Your task to perform on an android device: Search for Italian restaurants on Maps Image 0: 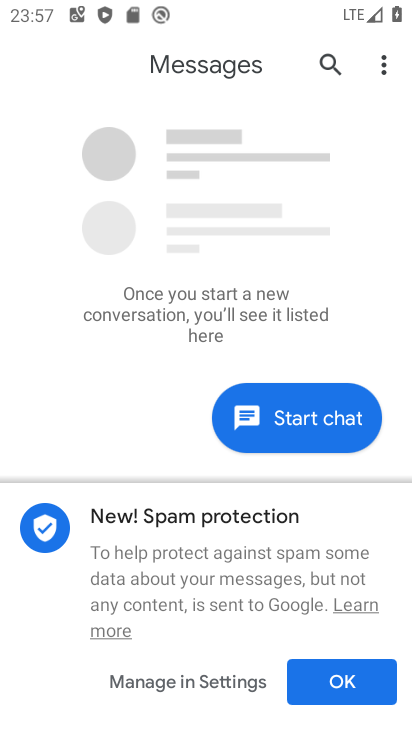
Step 0: press home button
Your task to perform on an android device: Search for Italian restaurants on Maps Image 1: 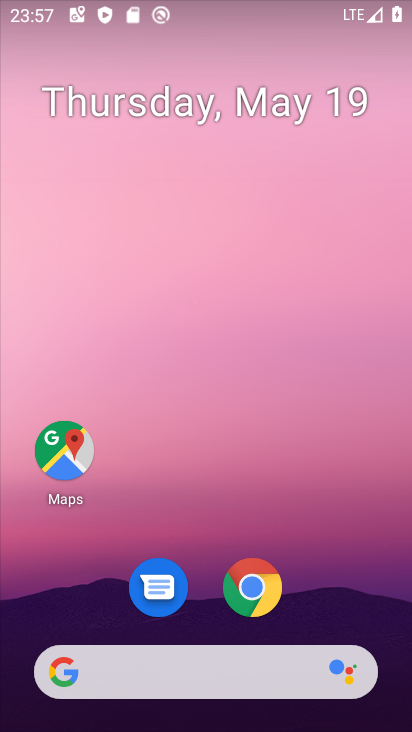
Step 1: drag from (244, 656) to (180, 267)
Your task to perform on an android device: Search for Italian restaurants on Maps Image 2: 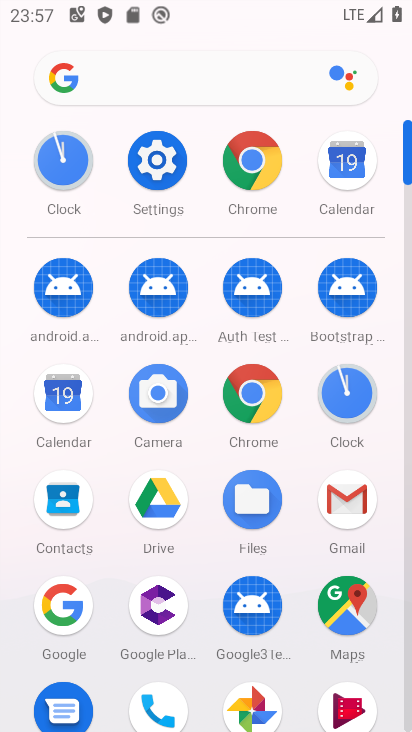
Step 2: click (355, 594)
Your task to perform on an android device: Search for Italian restaurants on Maps Image 3: 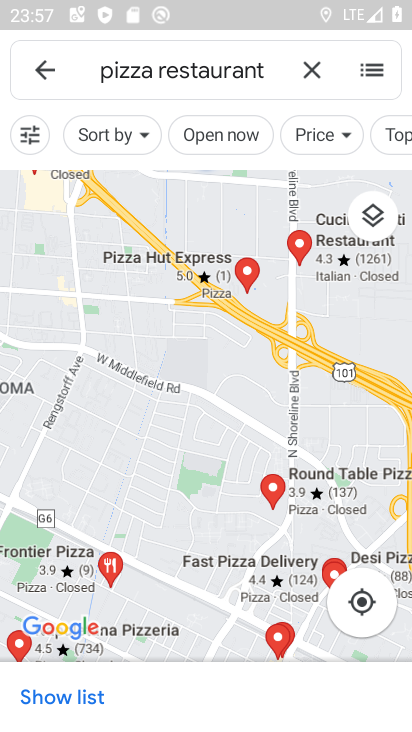
Step 3: click (306, 72)
Your task to perform on an android device: Search for Italian restaurants on Maps Image 4: 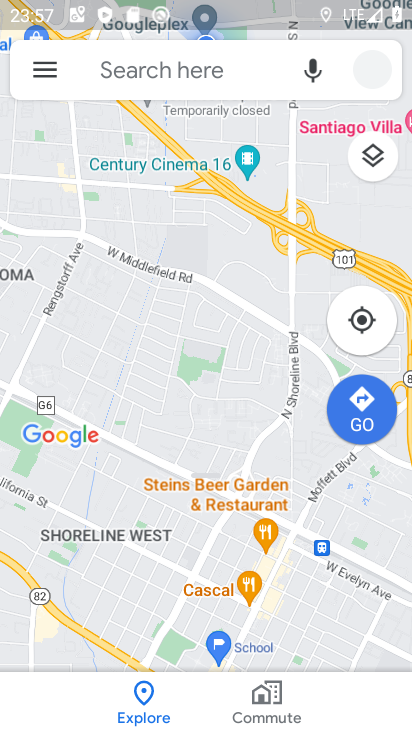
Step 4: click (213, 81)
Your task to perform on an android device: Search for Italian restaurants on Maps Image 5: 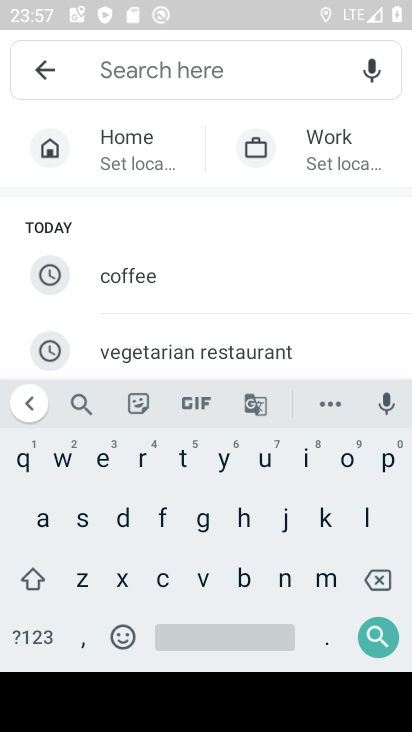
Step 5: click (302, 461)
Your task to perform on an android device: Search for Italian restaurants on Maps Image 6: 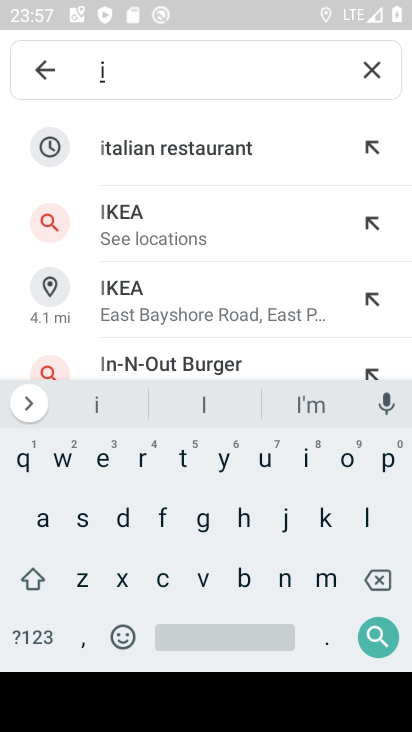
Step 6: click (187, 146)
Your task to perform on an android device: Search for Italian restaurants on Maps Image 7: 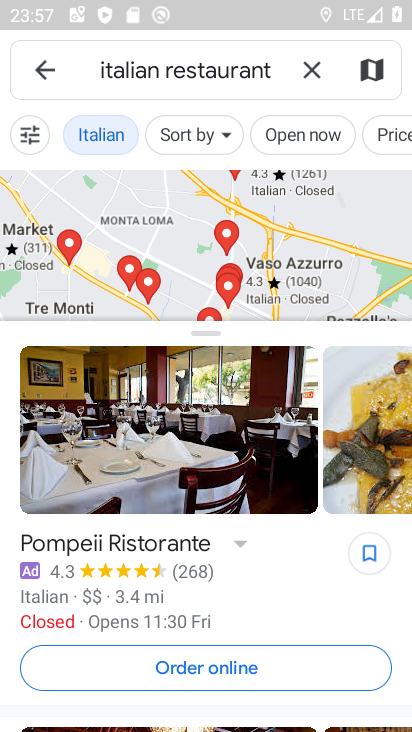
Step 7: click (174, 209)
Your task to perform on an android device: Search for Italian restaurants on Maps Image 8: 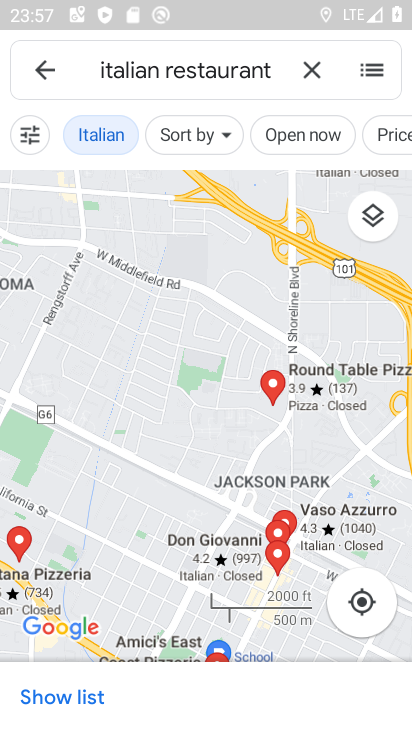
Step 8: task complete